Your task to perform on an android device: turn on showing notifications on the lock screen Image 0: 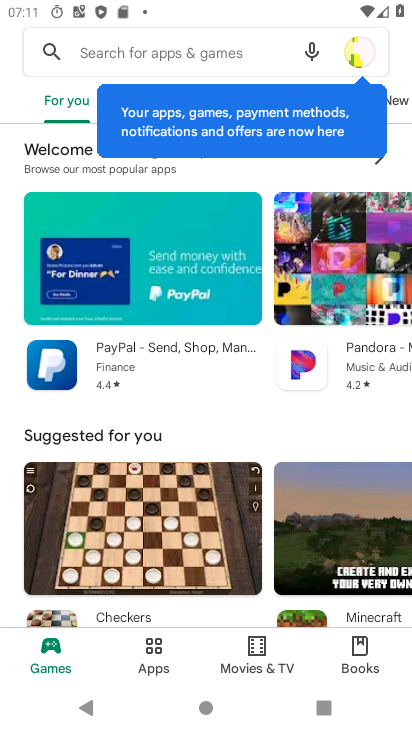
Step 0: press home button
Your task to perform on an android device: turn on showing notifications on the lock screen Image 1: 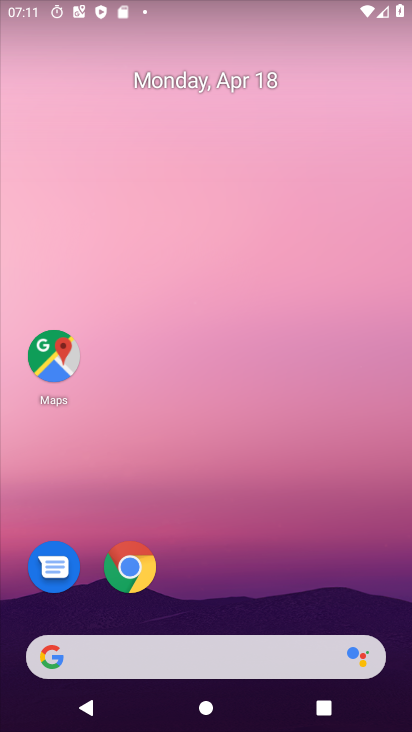
Step 1: drag from (210, 505) to (213, 171)
Your task to perform on an android device: turn on showing notifications on the lock screen Image 2: 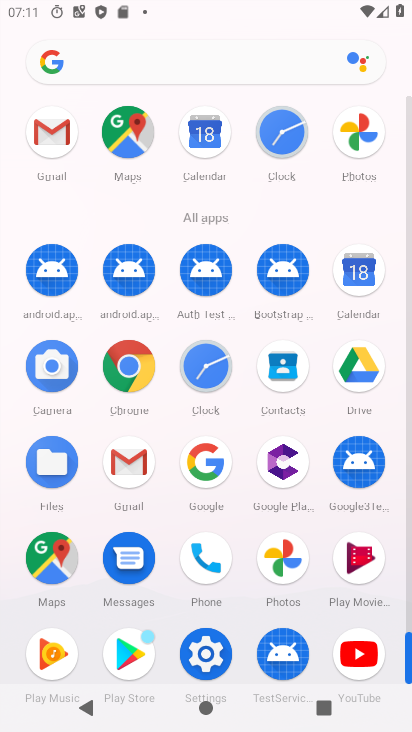
Step 2: click (220, 645)
Your task to perform on an android device: turn on showing notifications on the lock screen Image 3: 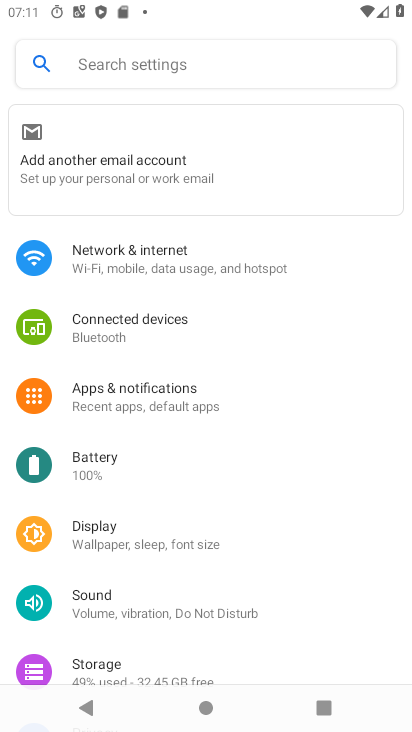
Step 3: click (172, 409)
Your task to perform on an android device: turn on showing notifications on the lock screen Image 4: 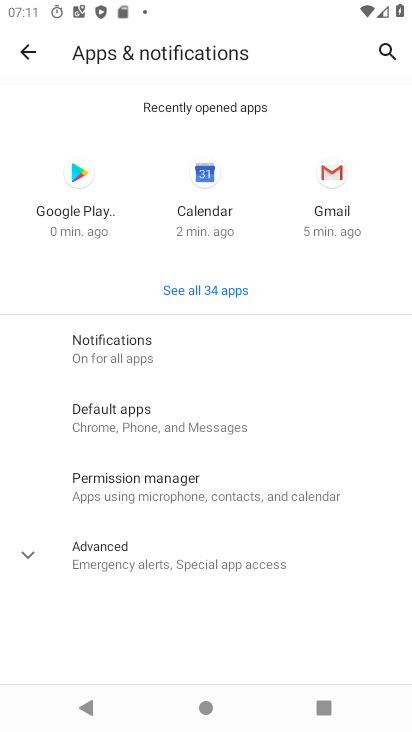
Step 4: click (234, 376)
Your task to perform on an android device: turn on showing notifications on the lock screen Image 5: 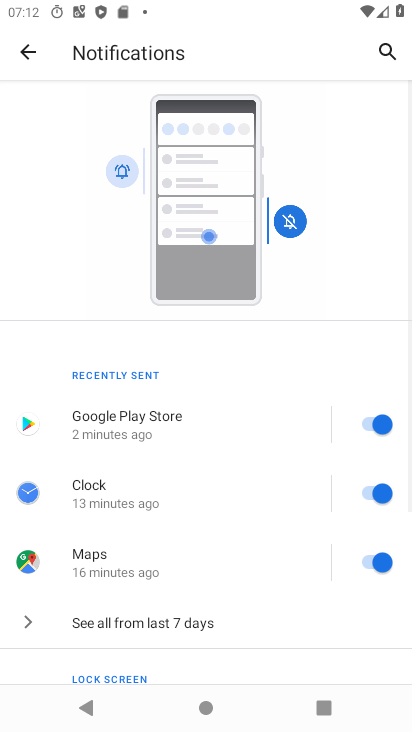
Step 5: drag from (226, 468) to (157, 81)
Your task to perform on an android device: turn on showing notifications on the lock screen Image 6: 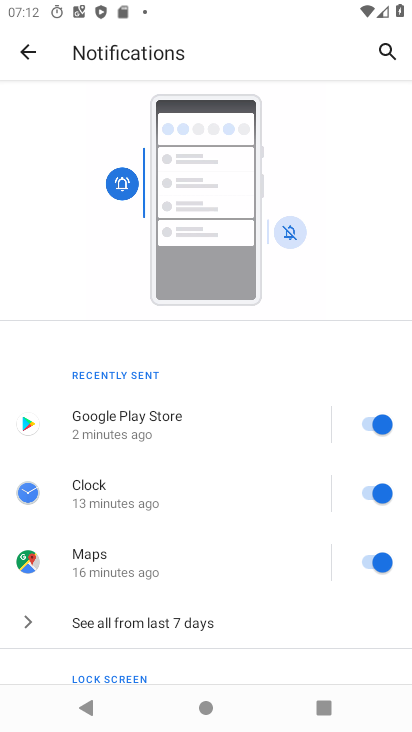
Step 6: drag from (291, 548) to (255, 170)
Your task to perform on an android device: turn on showing notifications on the lock screen Image 7: 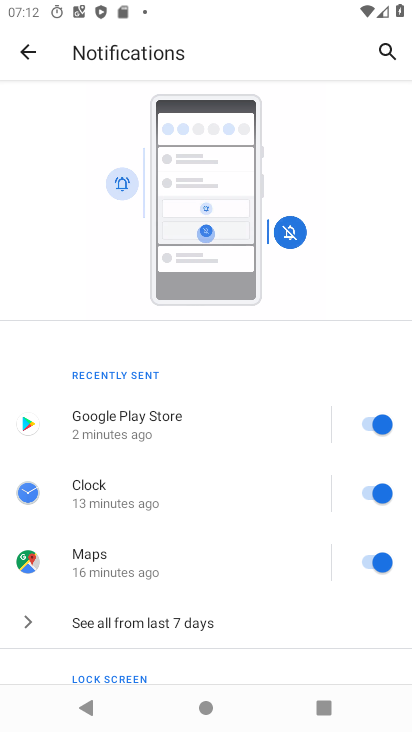
Step 7: drag from (279, 623) to (266, 197)
Your task to perform on an android device: turn on showing notifications on the lock screen Image 8: 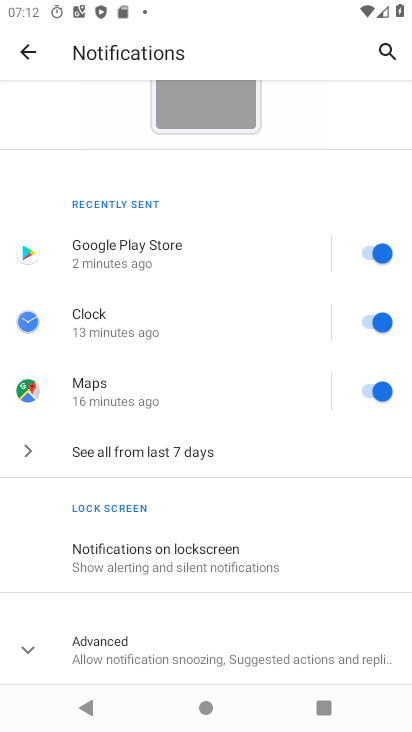
Step 8: click (211, 540)
Your task to perform on an android device: turn on showing notifications on the lock screen Image 9: 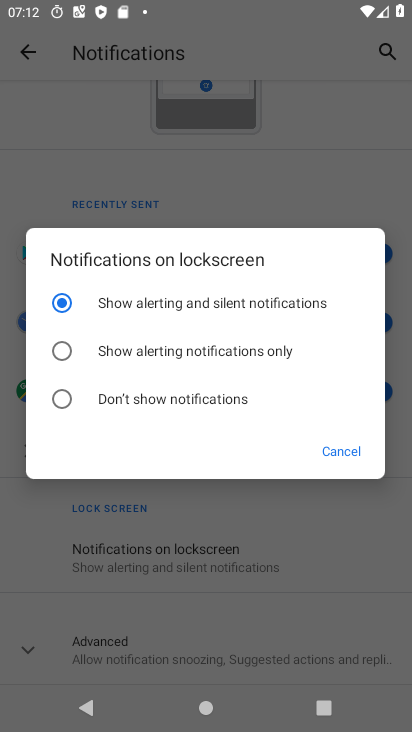
Step 9: click (203, 343)
Your task to perform on an android device: turn on showing notifications on the lock screen Image 10: 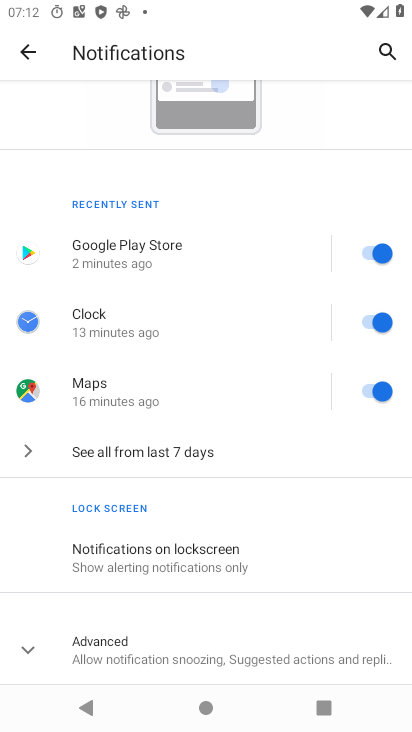
Step 10: task complete